Your task to perform on an android device: search for starred emails in the gmail app Image 0: 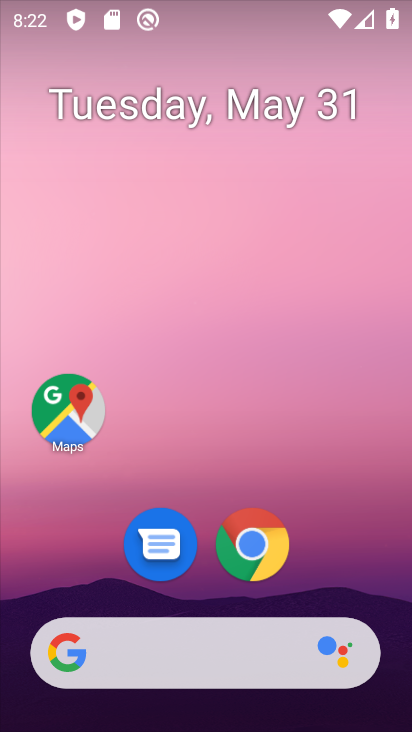
Step 0: drag from (188, 652) to (152, 187)
Your task to perform on an android device: search for starred emails in the gmail app Image 1: 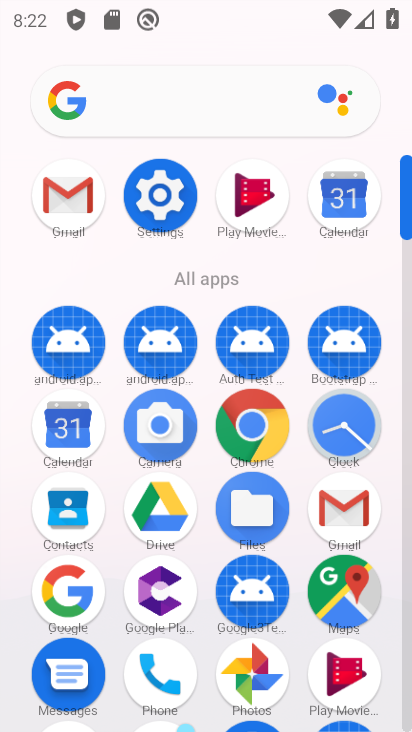
Step 1: click (74, 208)
Your task to perform on an android device: search for starred emails in the gmail app Image 2: 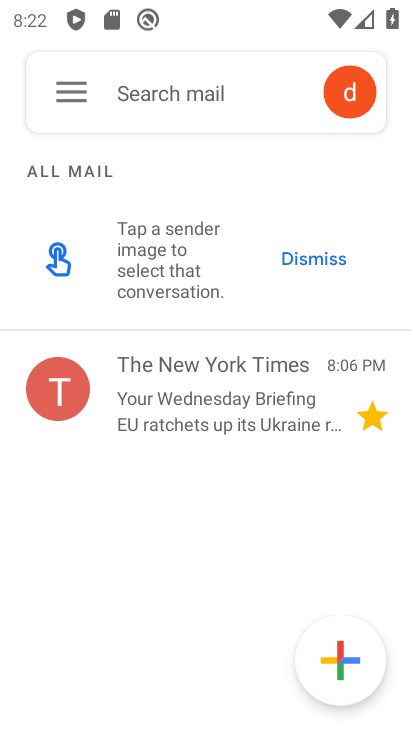
Step 2: click (70, 101)
Your task to perform on an android device: search for starred emails in the gmail app Image 3: 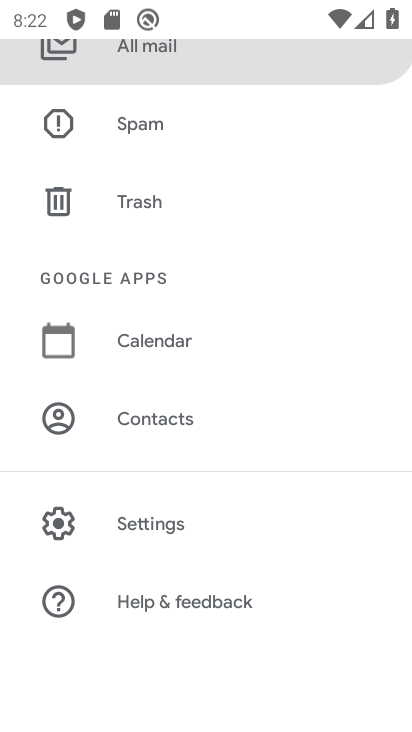
Step 3: drag from (99, 180) to (174, 626)
Your task to perform on an android device: search for starred emails in the gmail app Image 4: 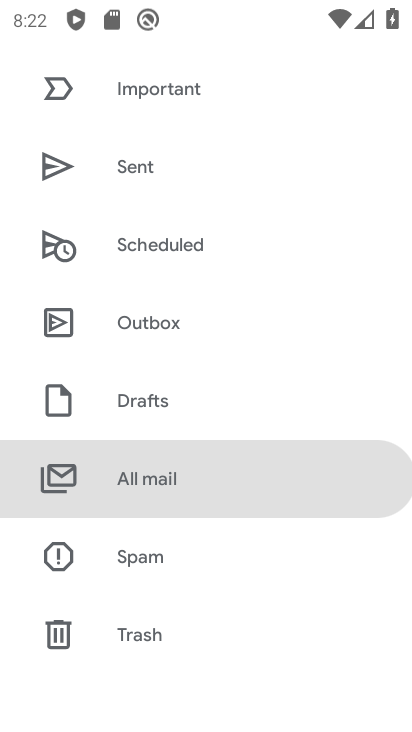
Step 4: drag from (165, 173) to (201, 623)
Your task to perform on an android device: search for starred emails in the gmail app Image 5: 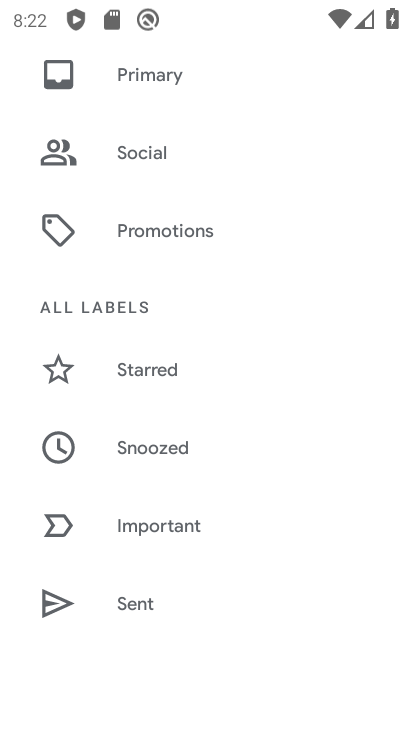
Step 5: click (161, 365)
Your task to perform on an android device: search for starred emails in the gmail app Image 6: 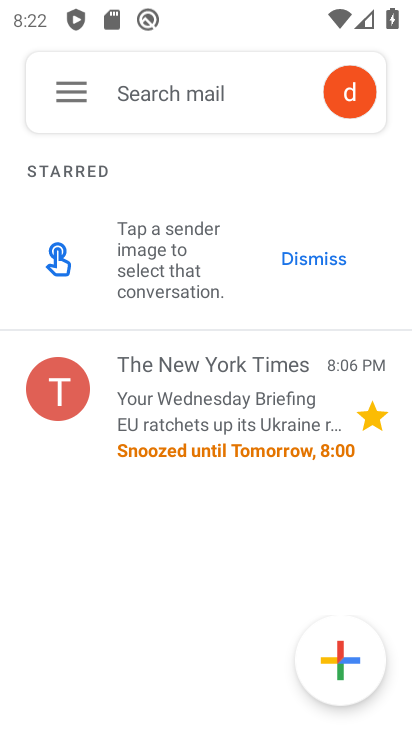
Step 6: task complete